Your task to perform on an android device: move a message to another label in the gmail app Image 0: 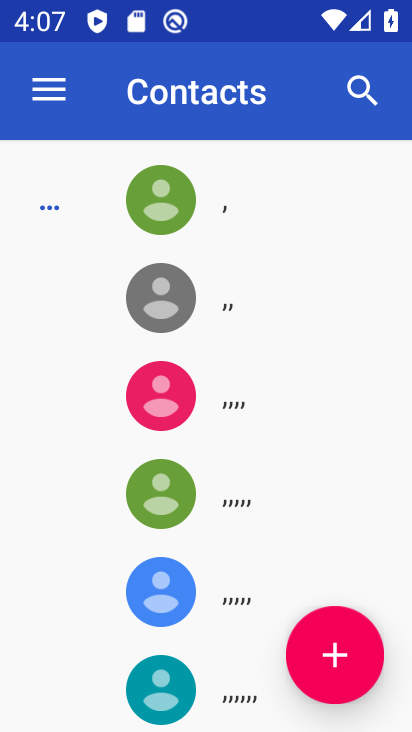
Step 0: press home button
Your task to perform on an android device: move a message to another label in the gmail app Image 1: 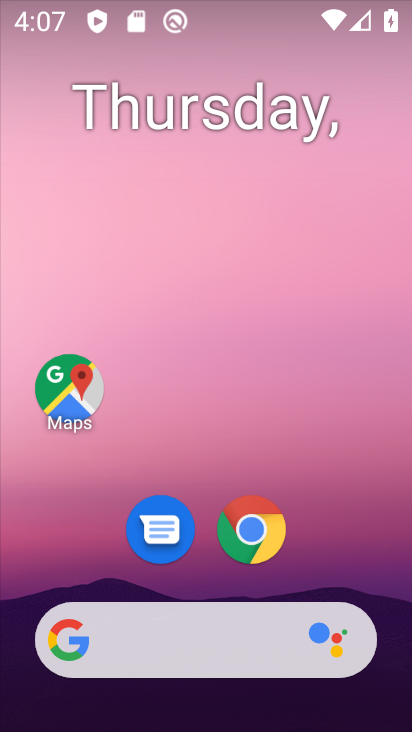
Step 1: drag from (242, 682) to (247, 188)
Your task to perform on an android device: move a message to another label in the gmail app Image 2: 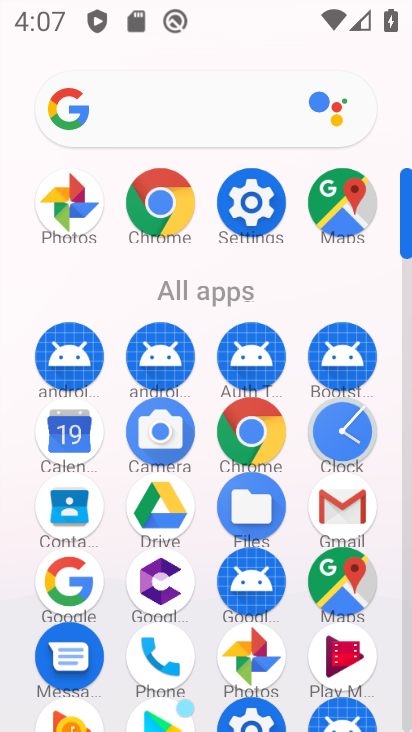
Step 2: click (337, 515)
Your task to perform on an android device: move a message to another label in the gmail app Image 3: 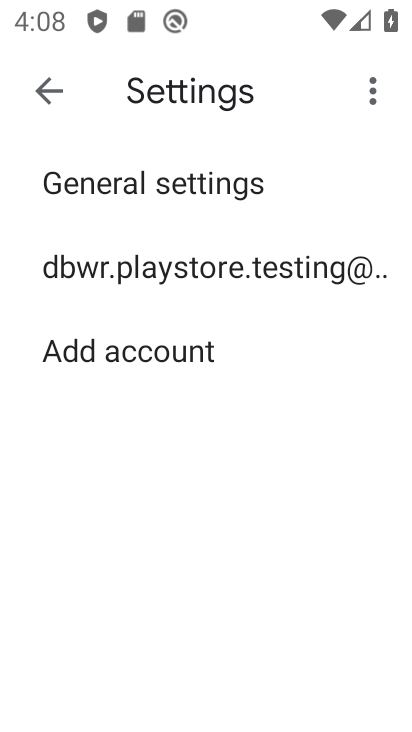
Step 3: click (49, 83)
Your task to perform on an android device: move a message to another label in the gmail app Image 4: 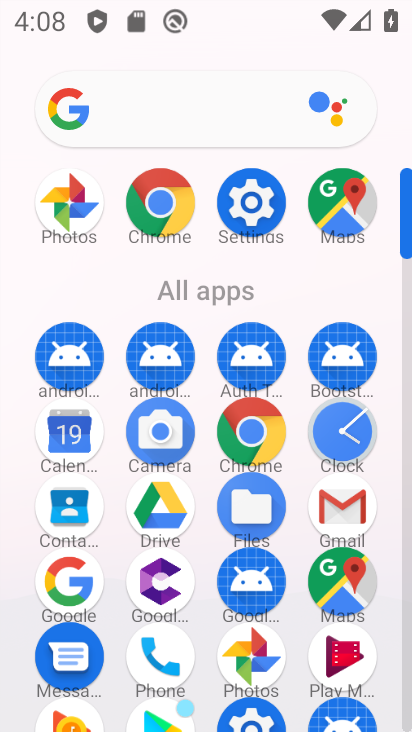
Step 4: click (347, 499)
Your task to perform on an android device: move a message to another label in the gmail app Image 5: 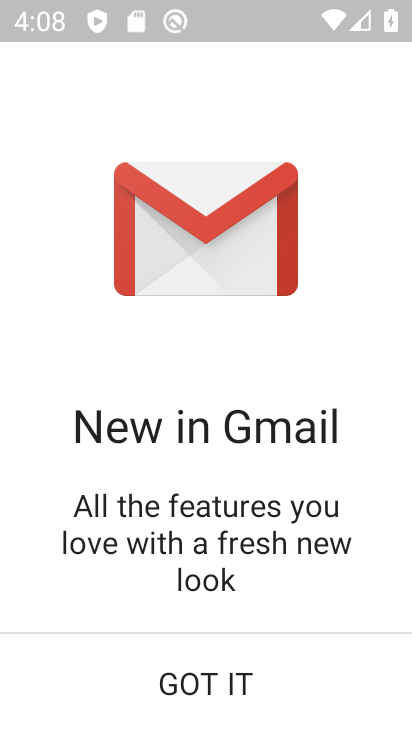
Step 5: click (219, 688)
Your task to perform on an android device: move a message to another label in the gmail app Image 6: 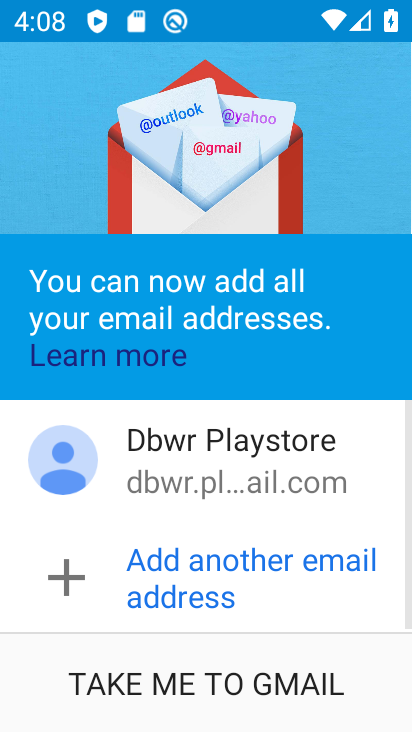
Step 6: click (219, 674)
Your task to perform on an android device: move a message to another label in the gmail app Image 7: 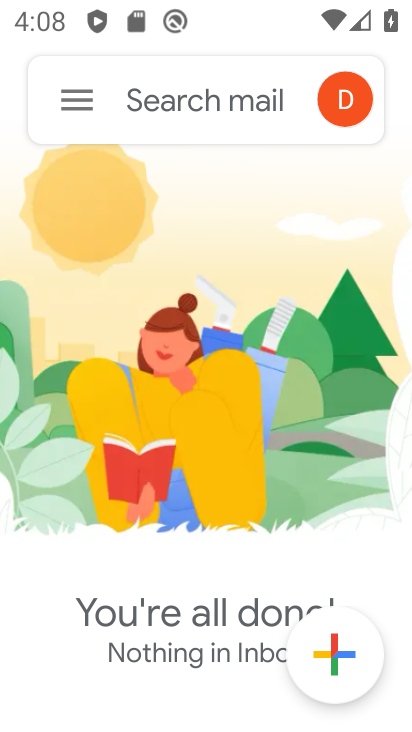
Step 7: task complete